Your task to perform on an android device: Open accessibility settings Image 0: 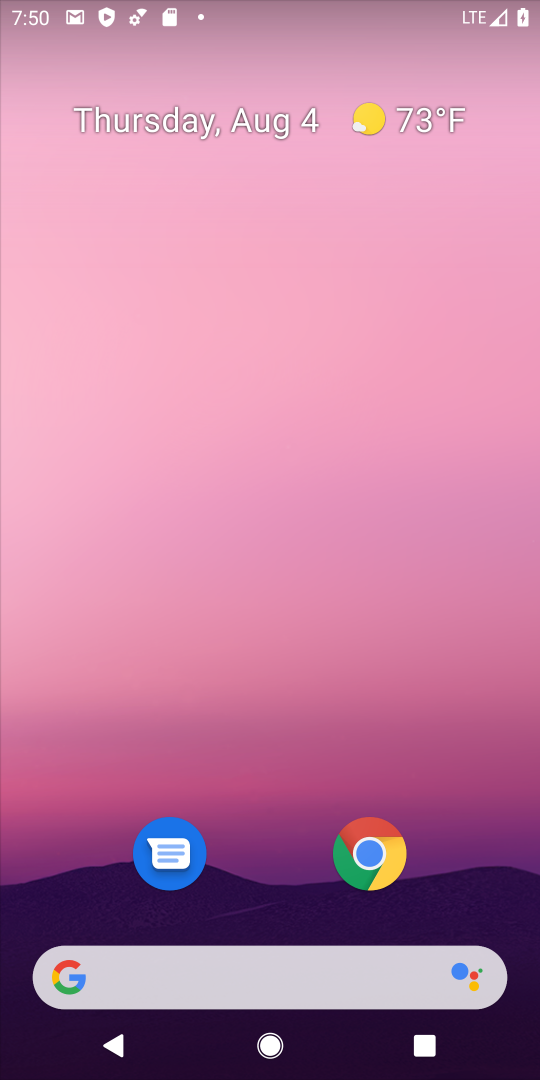
Step 0: drag from (255, 967) to (230, 460)
Your task to perform on an android device: Open accessibility settings Image 1: 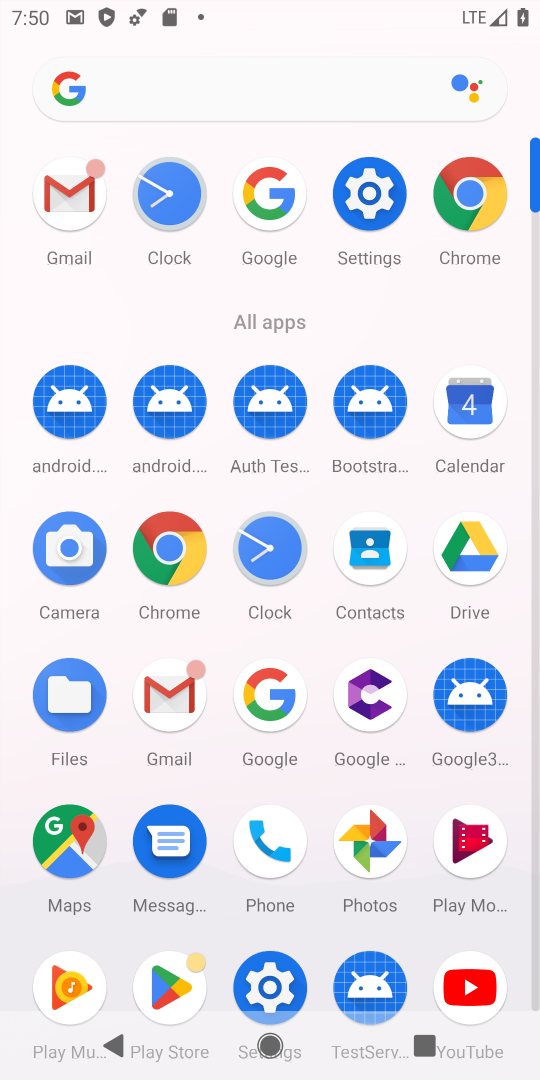
Step 1: click (248, 982)
Your task to perform on an android device: Open accessibility settings Image 2: 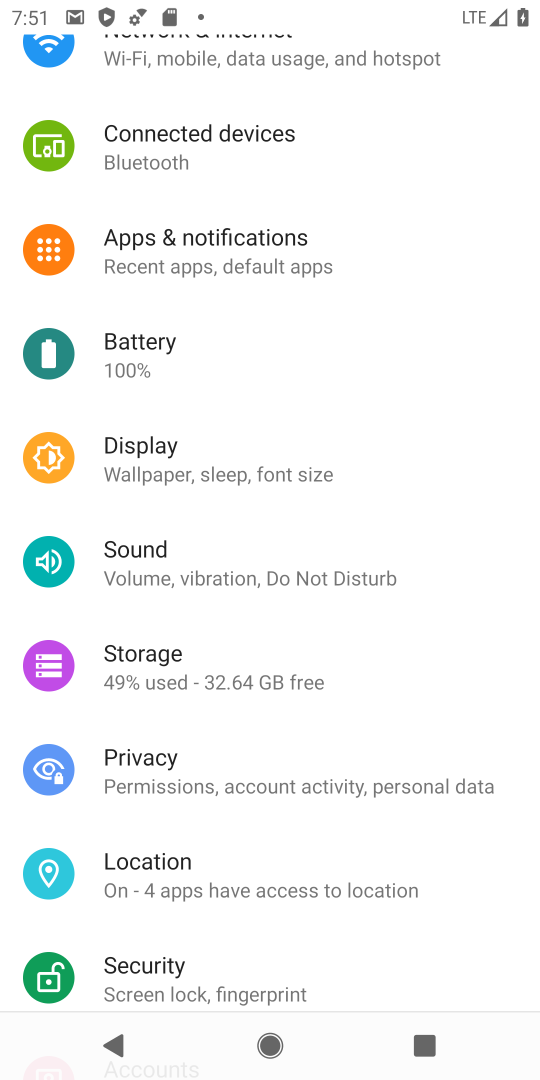
Step 2: drag from (260, 943) to (290, 283)
Your task to perform on an android device: Open accessibility settings Image 3: 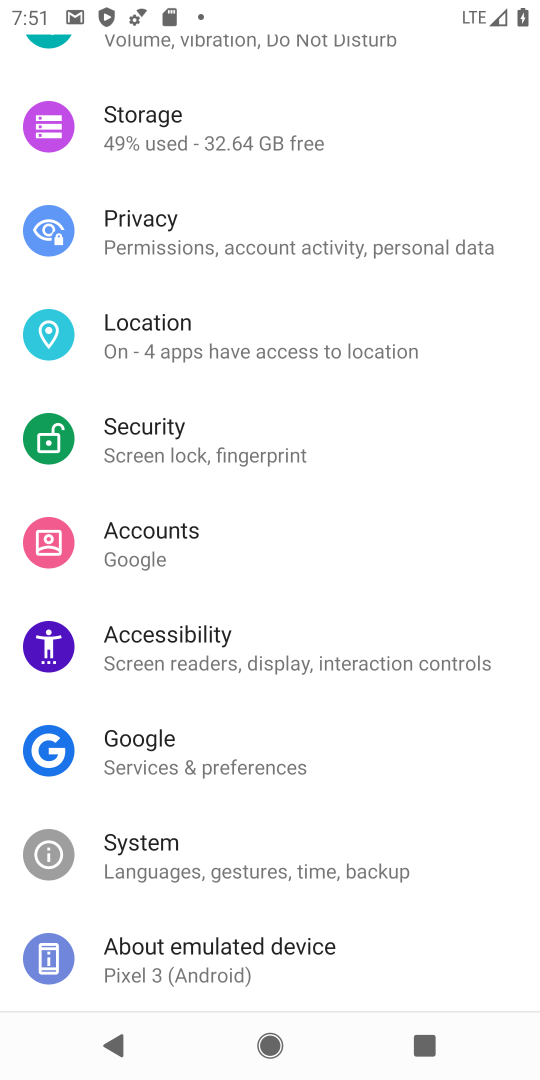
Step 3: click (177, 633)
Your task to perform on an android device: Open accessibility settings Image 4: 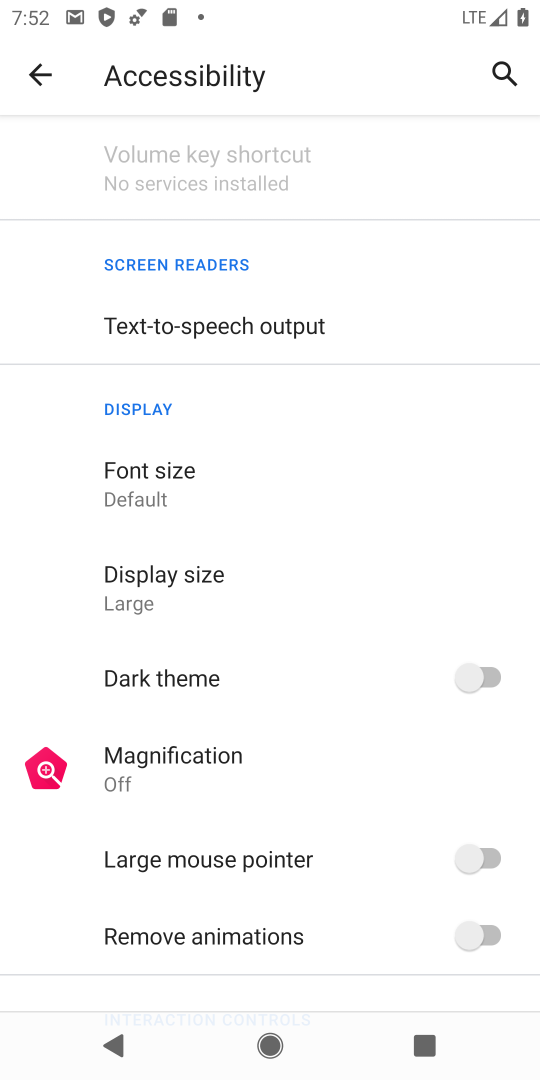
Step 4: task complete